Your task to perform on an android device: What's the news in Taiwan? Image 0: 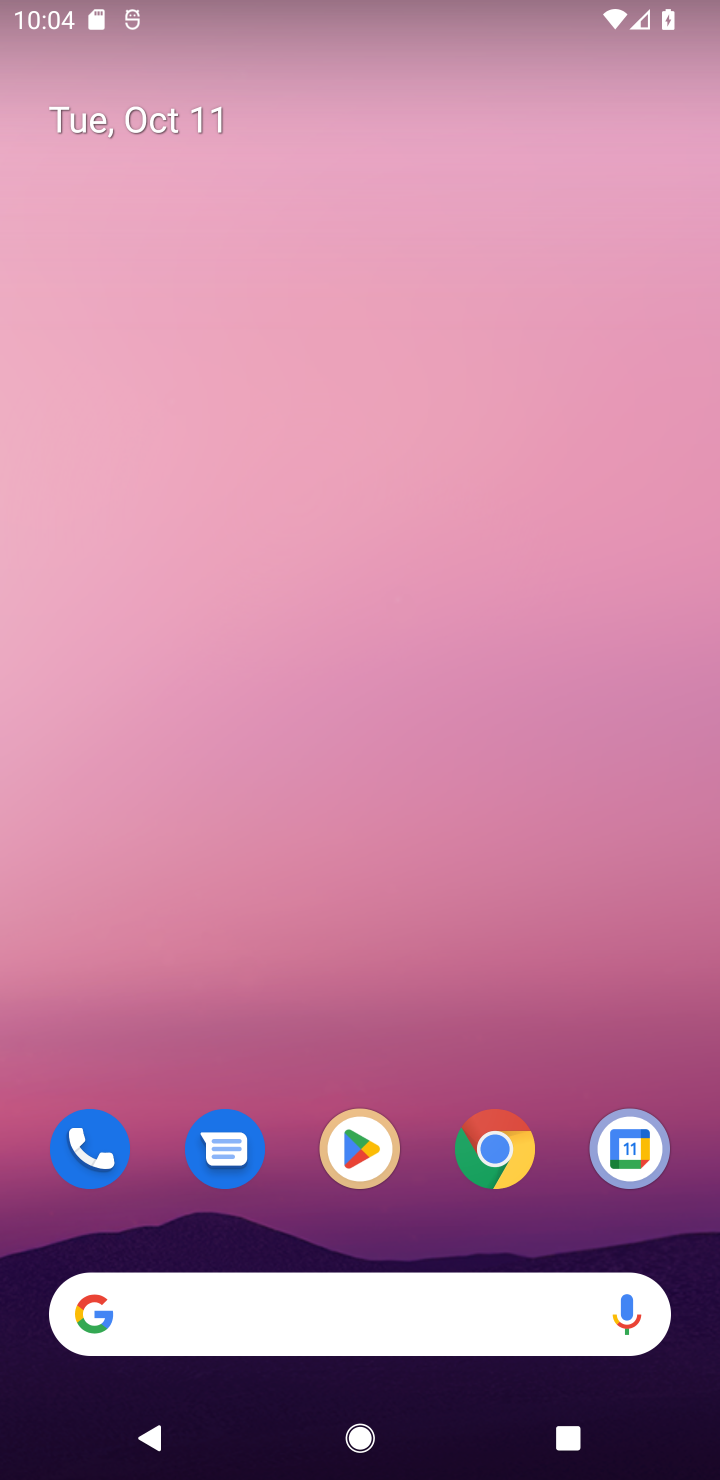
Step 0: drag from (336, 1097) to (363, 350)
Your task to perform on an android device: What's the news in Taiwan? Image 1: 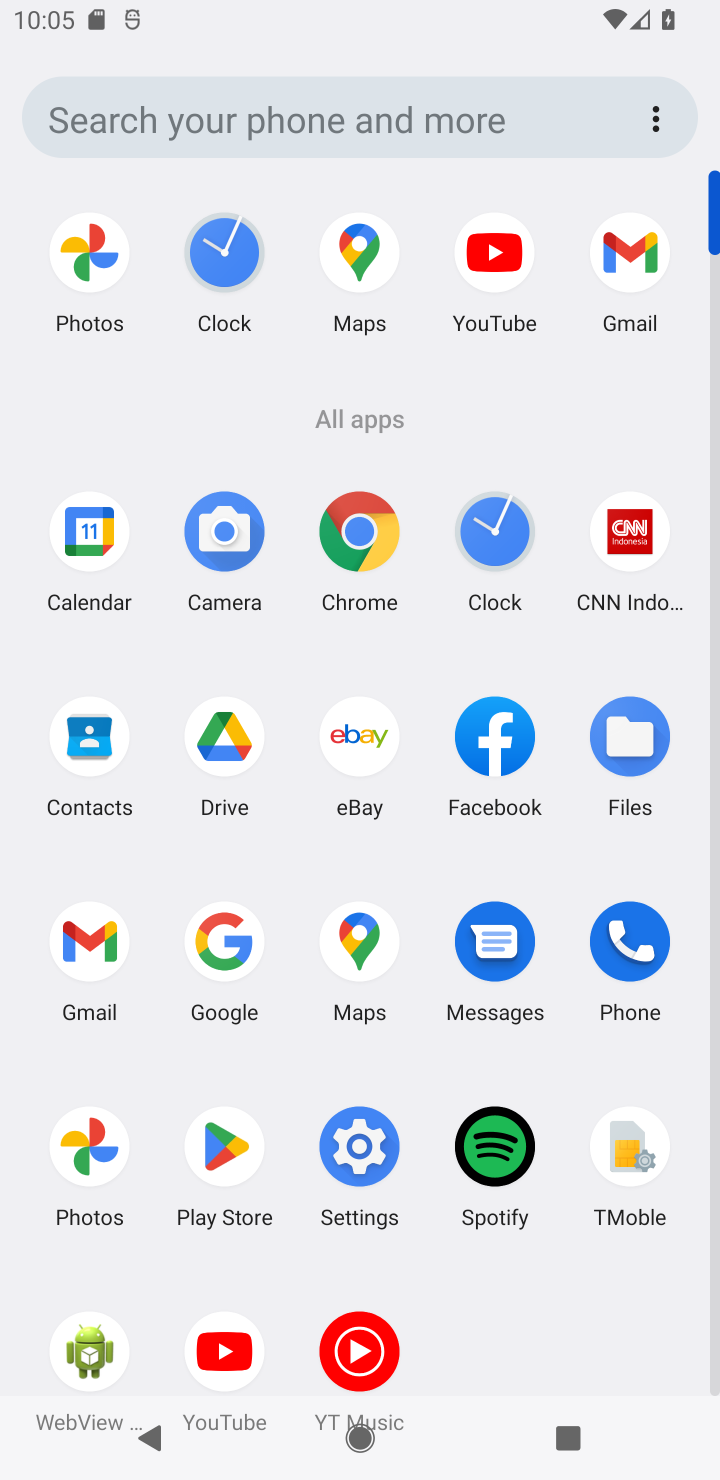
Step 1: click (349, 137)
Your task to perform on an android device: What's the news in Taiwan? Image 2: 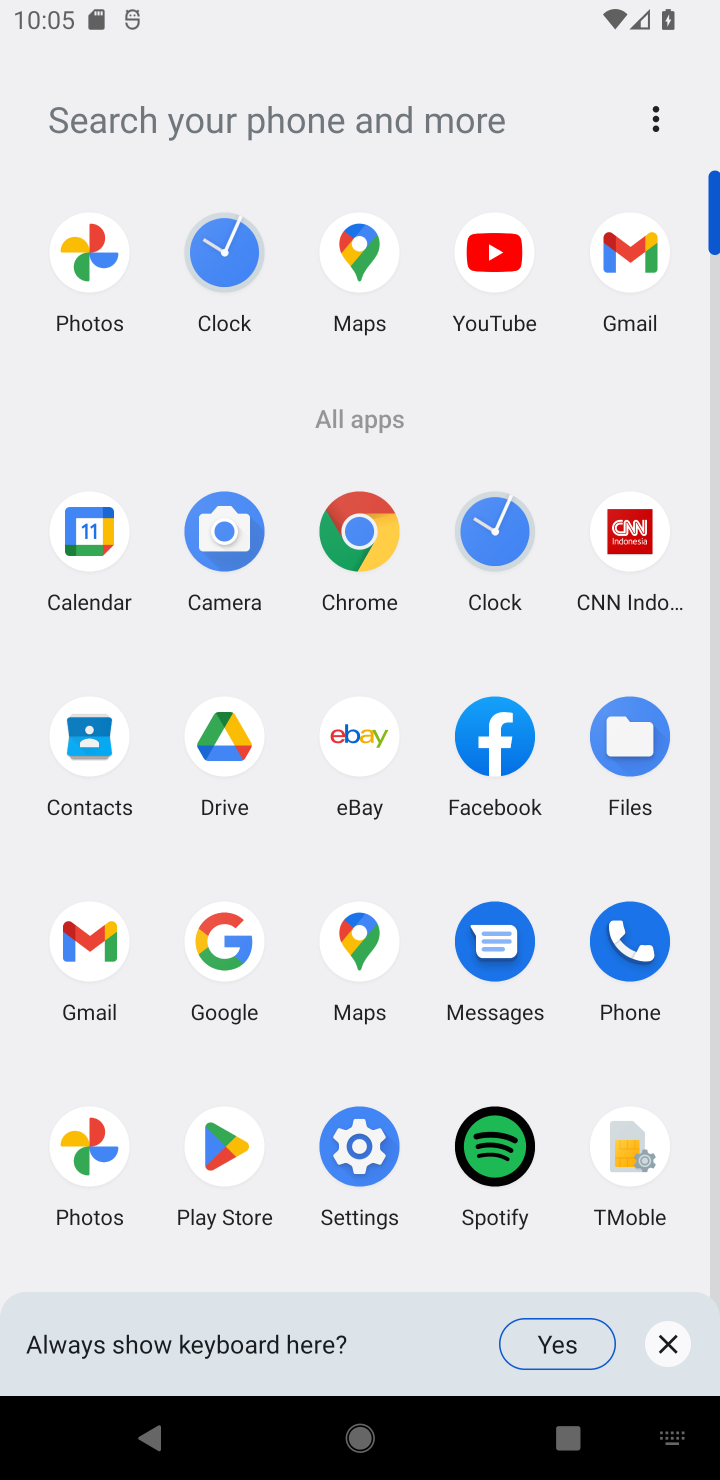
Step 2: click (236, 935)
Your task to perform on an android device: What's the news in Taiwan? Image 3: 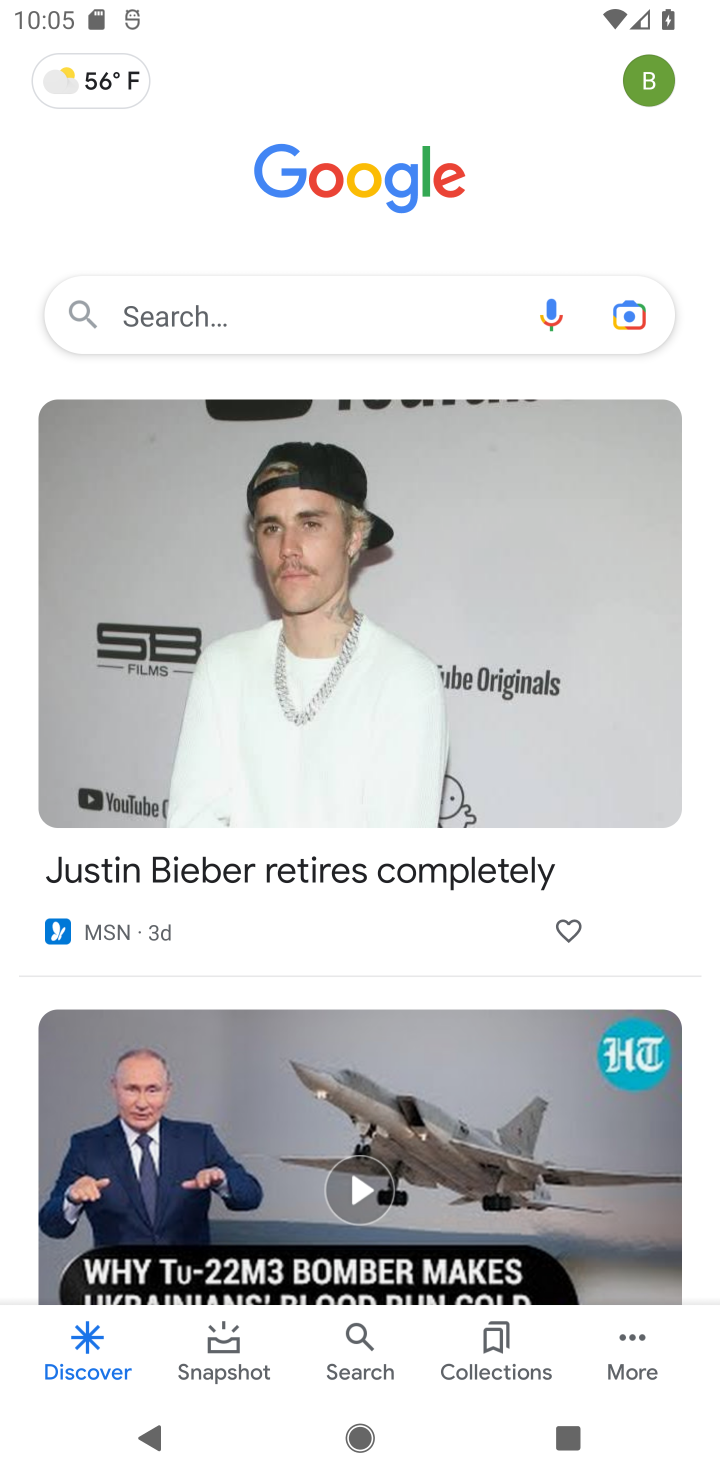
Step 3: click (305, 299)
Your task to perform on an android device: What's the news in Taiwan? Image 4: 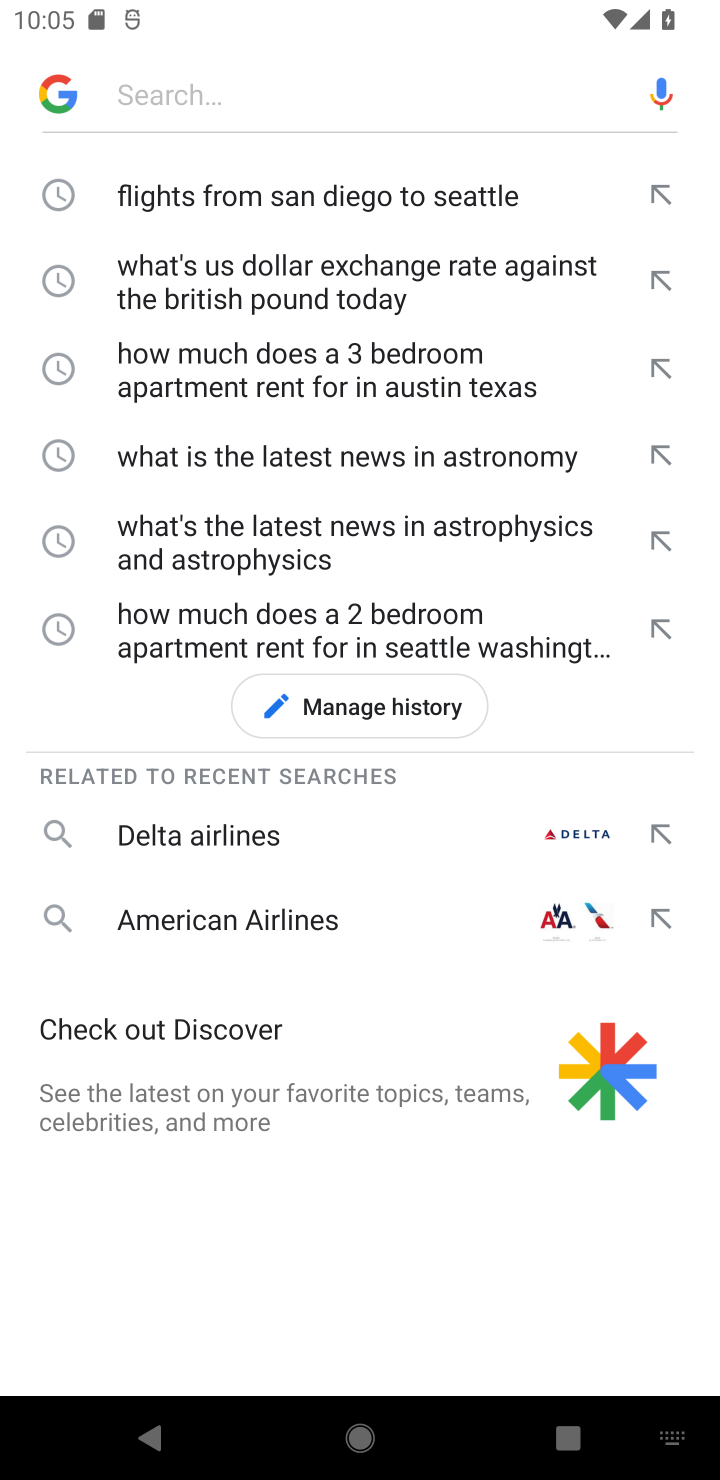
Step 4: type "What's the news in Taiwan?"
Your task to perform on an android device: What's the news in Taiwan? Image 5: 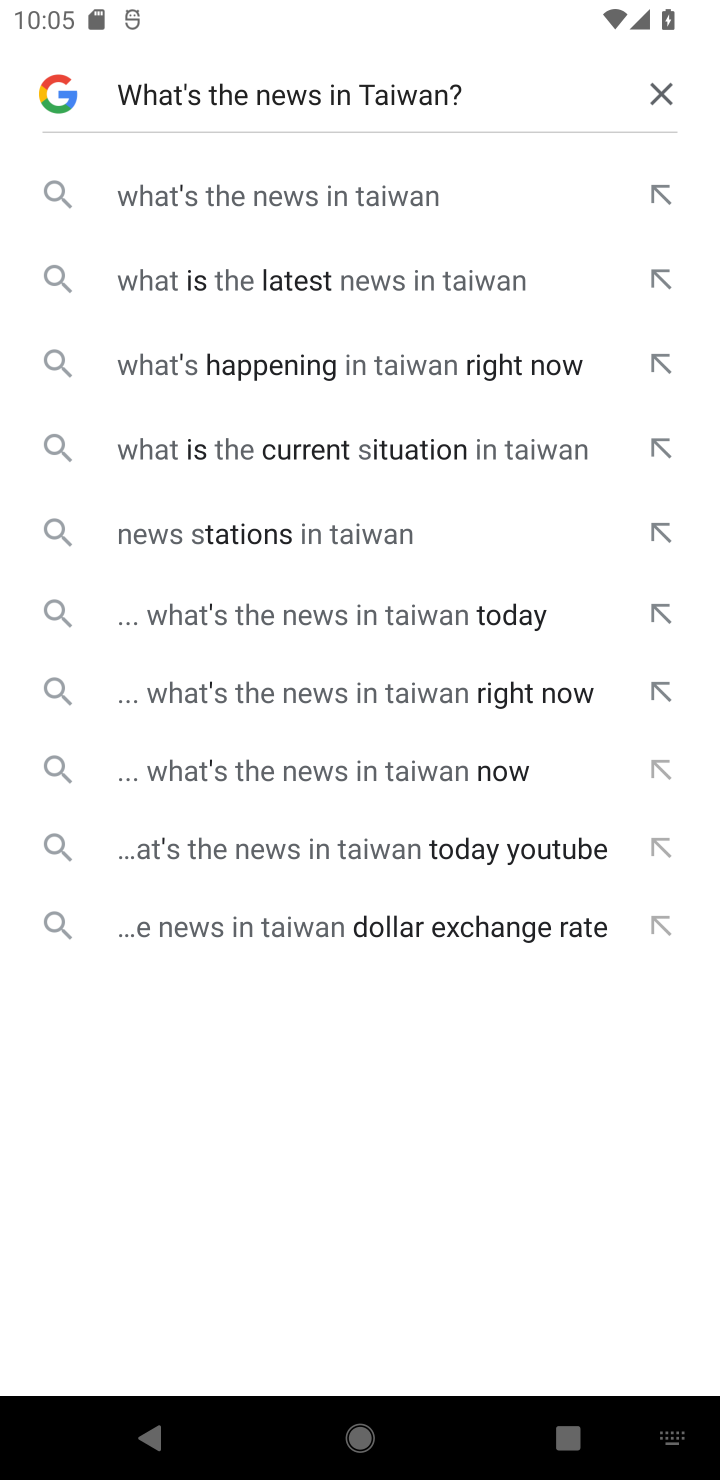
Step 5: click (344, 185)
Your task to perform on an android device: What's the news in Taiwan? Image 6: 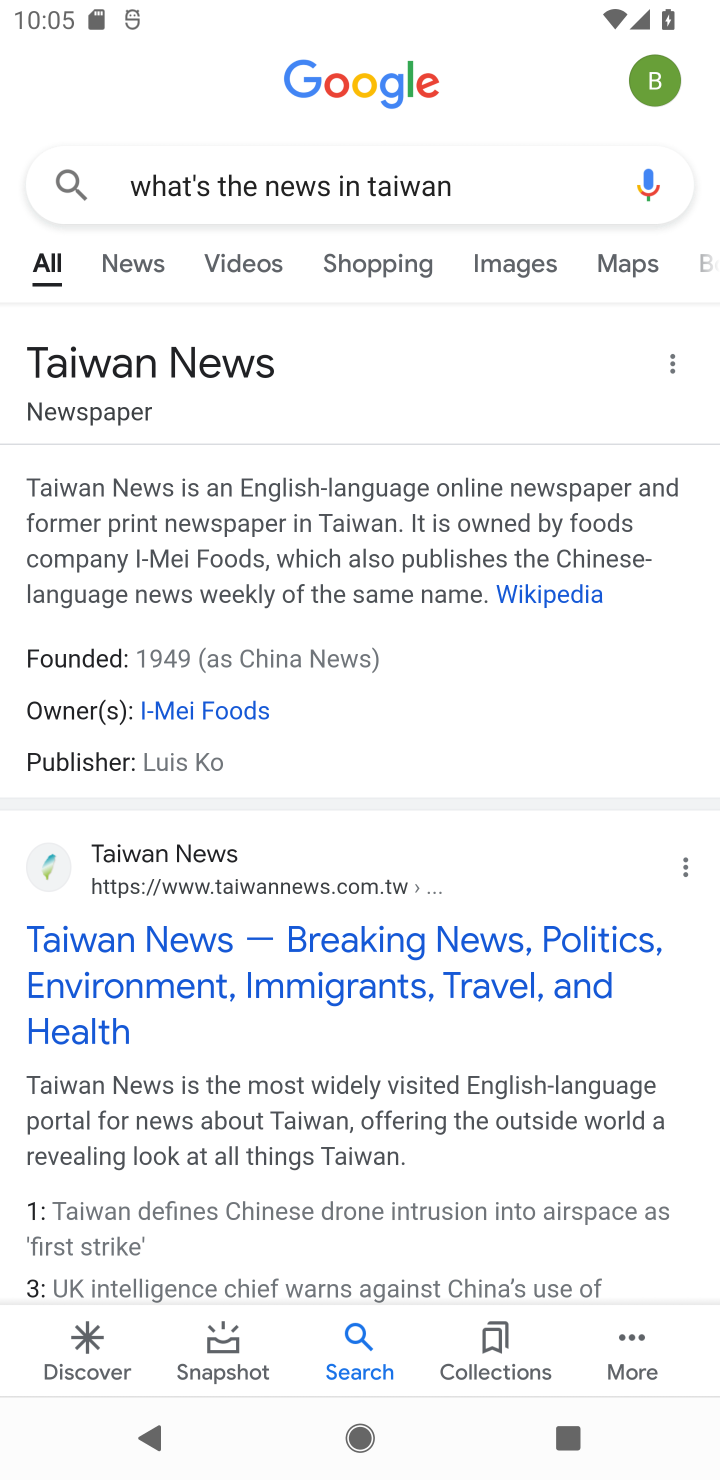
Step 6: task complete